Your task to perform on an android device: see creations saved in the google photos Image 0: 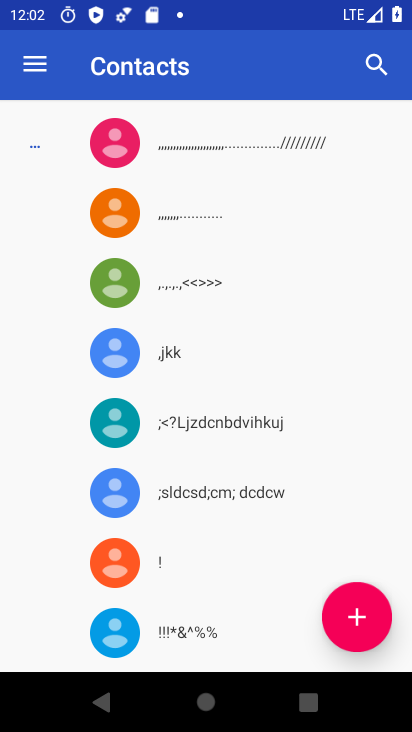
Step 0: press home button
Your task to perform on an android device: see creations saved in the google photos Image 1: 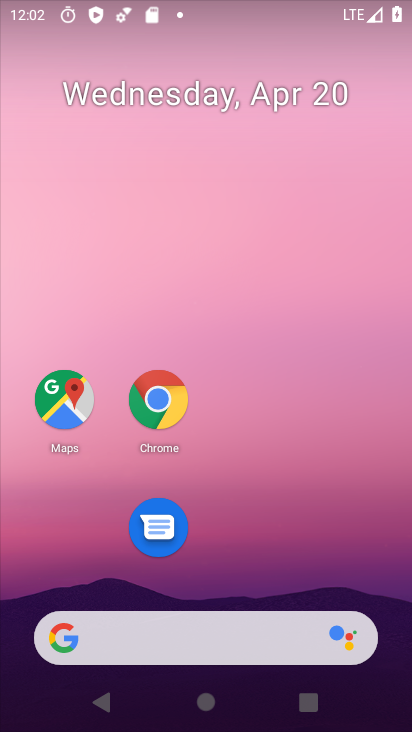
Step 1: drag from (257, 658) to (164, 112)
Your task to perform on an android device: see creations saved in the google photos Image 2: 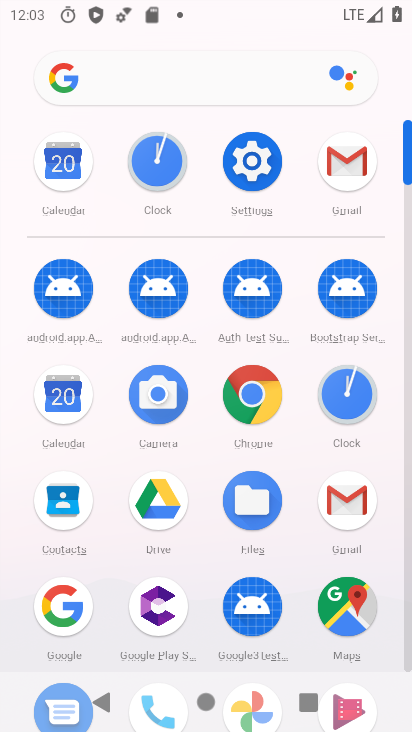
Step 2: drag from (203, 538) to (162, 365)
Your task to perform on an android device: see creations saved in the google photos Image 3: 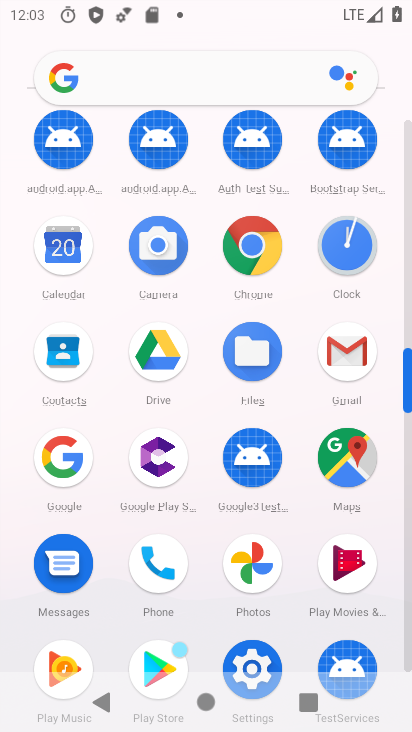
Step 3: click (252, 565)
Your task to perform on an android device: see creations saved in the google photos Image 4: 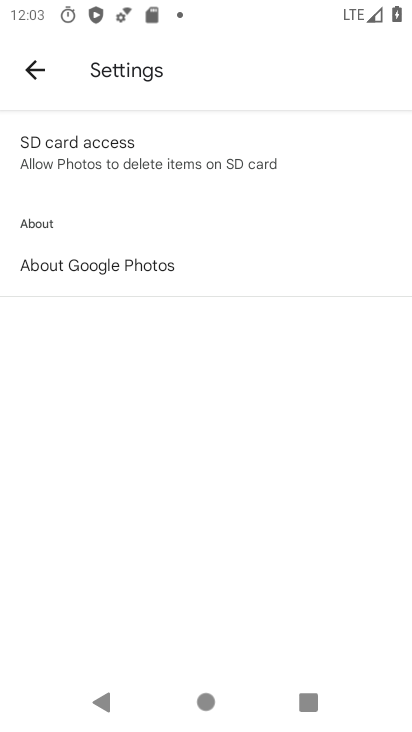
Step 4: click (29, 83)
Your task to perform on an android device: see creations saved in the google photos Image 5: 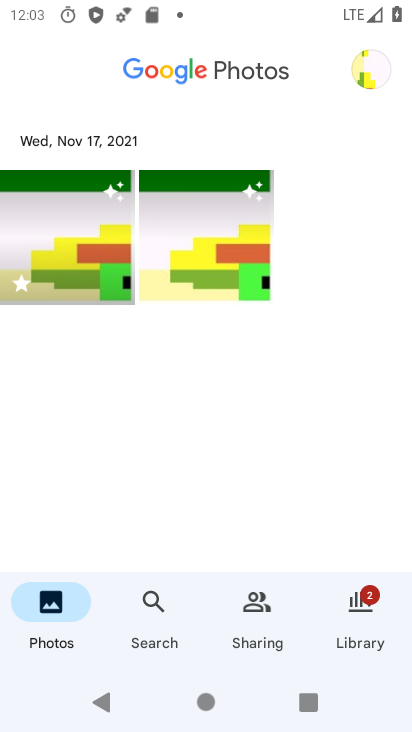
Step 5: click (224, 267)
Your task to perform on an android device: see creations saved in the google photos Image 6: 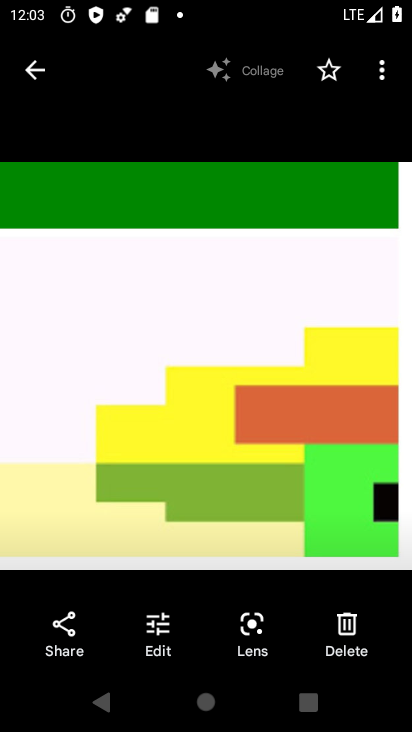
Step 6: click (383, 54)
Your task to perform on an android device: see creations saved in the google photos Image 7: 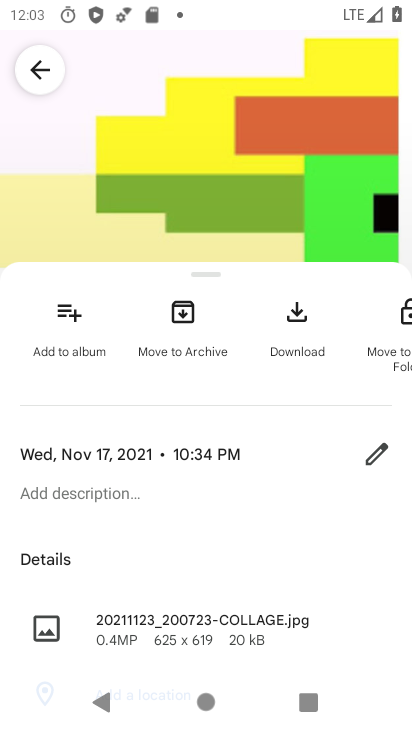
Step 7: task complete